Your task to perform on an android device: What's the weather? Image 0: 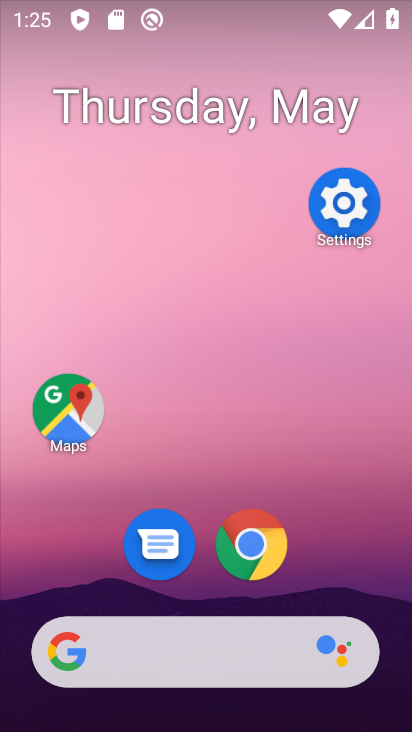
Step 0: click (261, 560)
Your task to perform on an android device: What's the weather? Image 1: 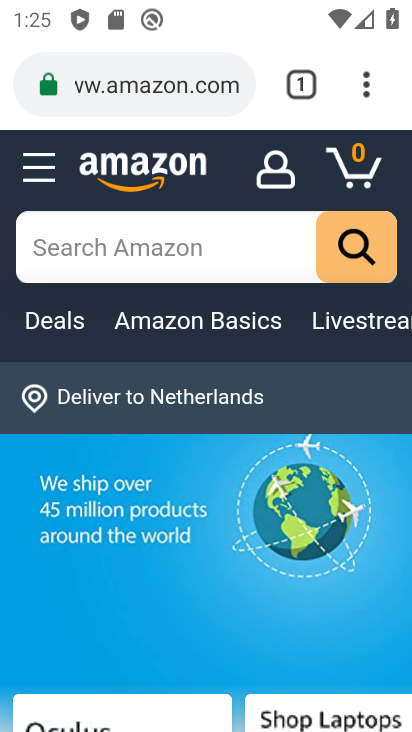
Step 1: click (134, 86)
Your task to perform on an android device: What's the weather? Image 2: 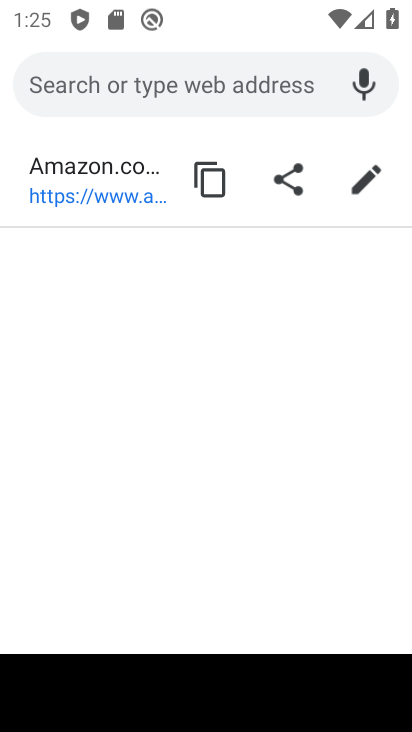
Step 2: type "whats the weather"
Your task to perform on an android device: What's the weather? Image 3: 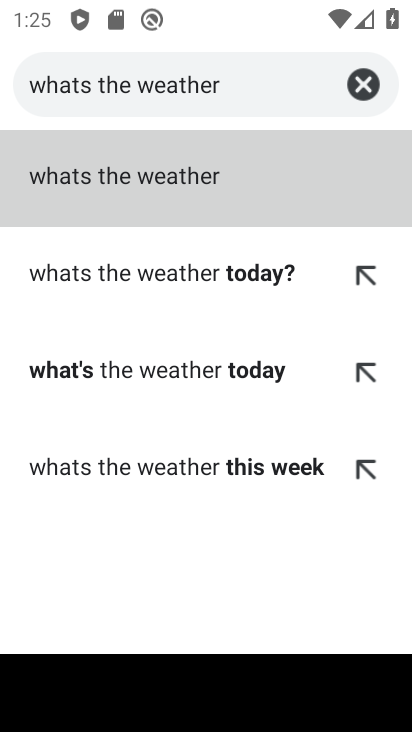
Step 3: click (204, 187)
Your task to perform on an android device: What's the weather? Image 4: 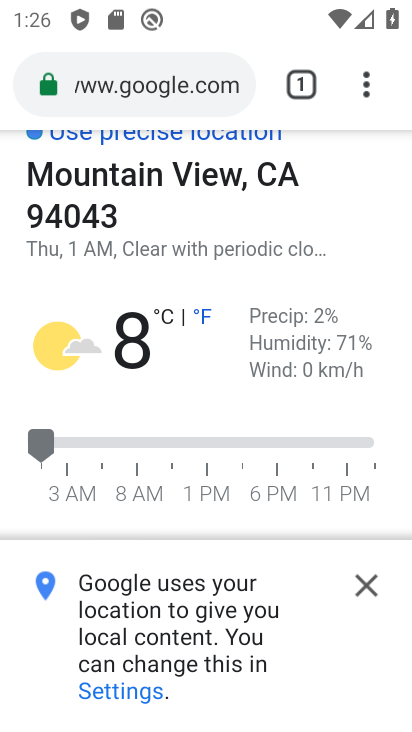
Step 4: task complete